Your task to perform on an android device: Go to settings Image 0: 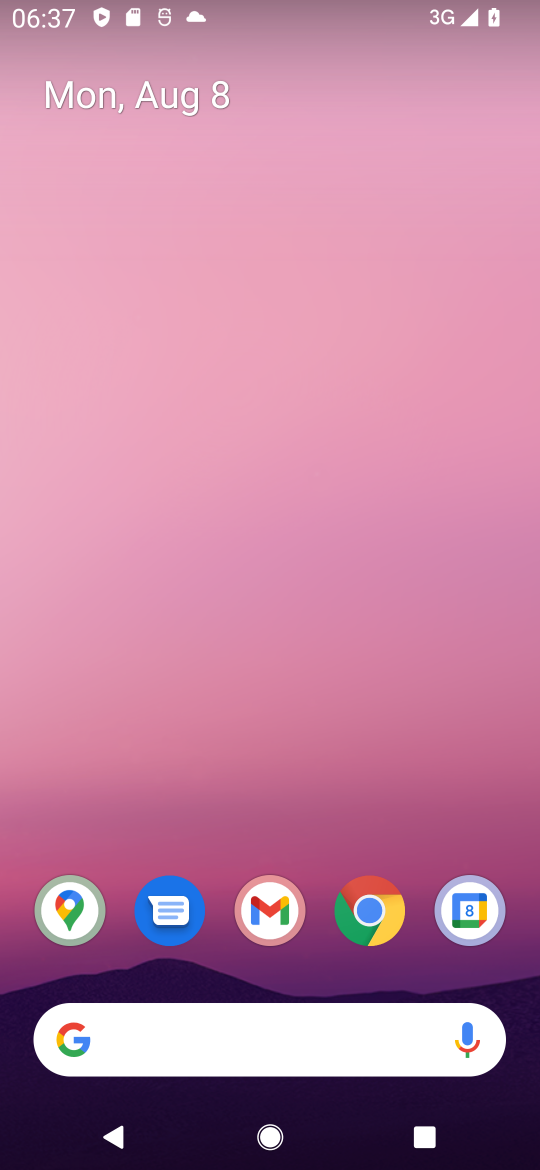
Step 0: drag from (220, 1058) to (346, 312)
Your task to perform on an android device: Go to settings Image 1: 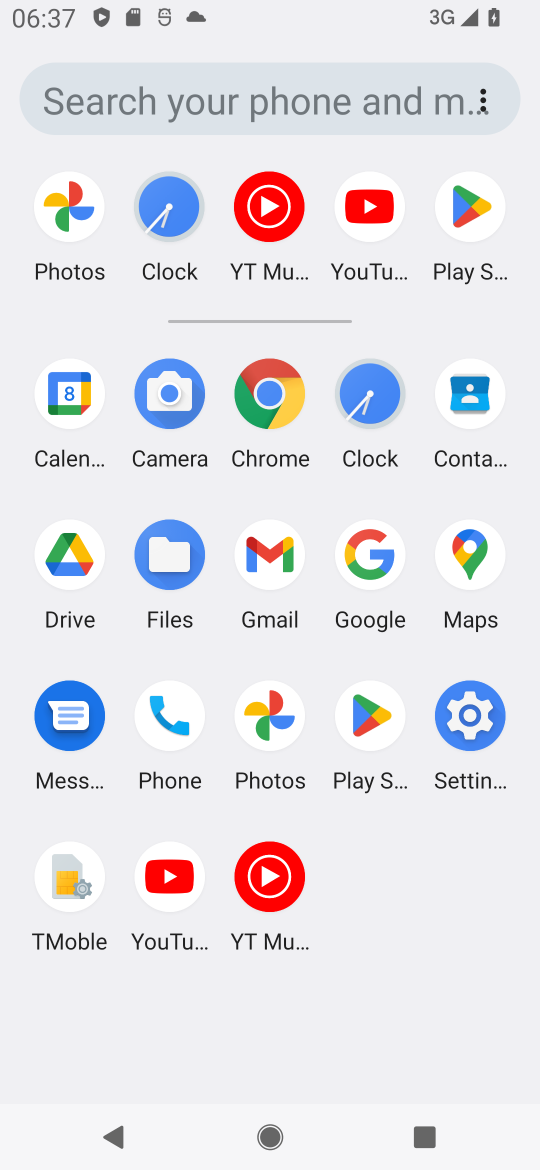
Step 1: click (468, 714)
Your task to perform on an android device: Go to settings Image 2: 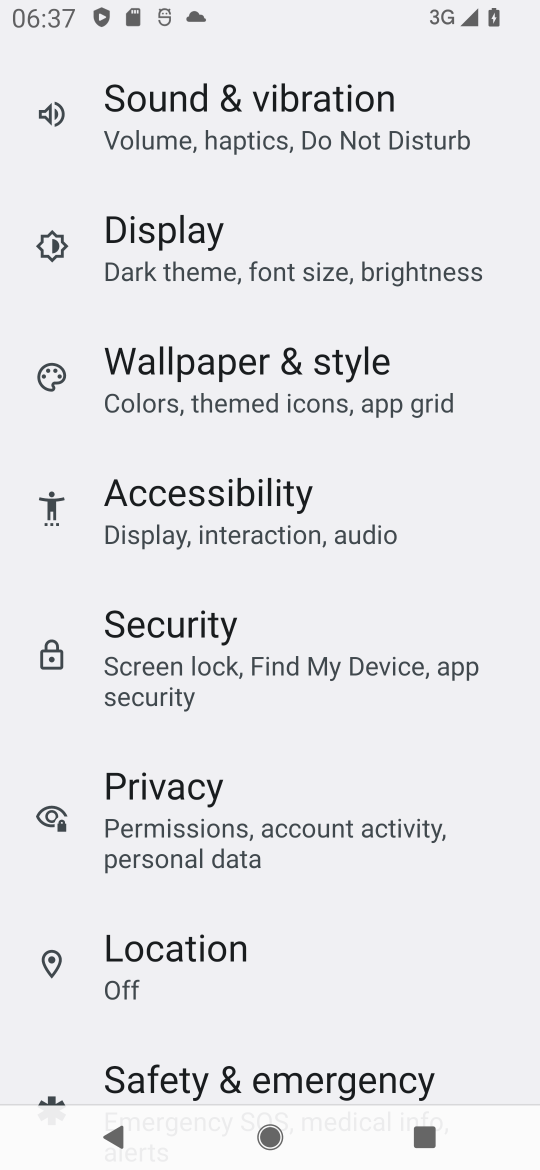
Step 2: task complete